Your task to perform on an android device: move an email to a new category in the gmail app Image 0: 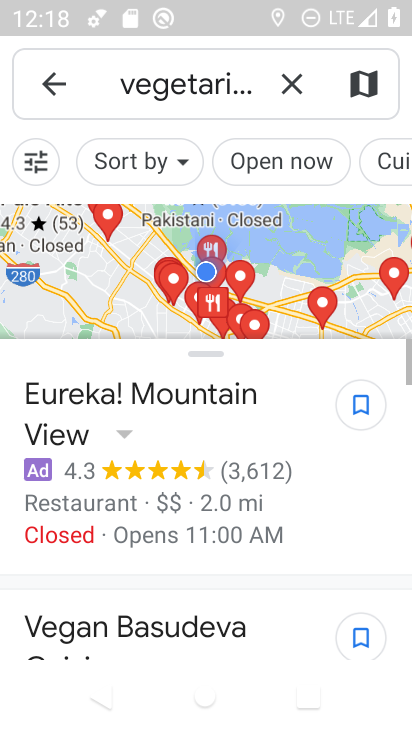
Step 0: press home button
Your task to perform on an android device: move an email to a new category in the gmail app Image 1: 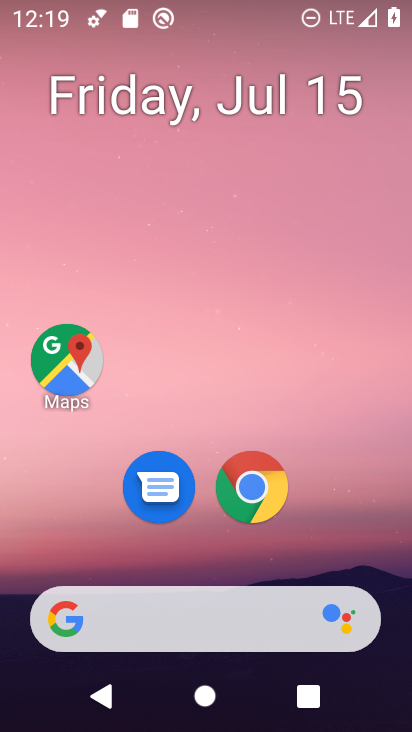
Step 1: drag from (193, 646) to (209, 226)
Your task to perform on an android device: move an email to a new category in the gmail app Image 2: 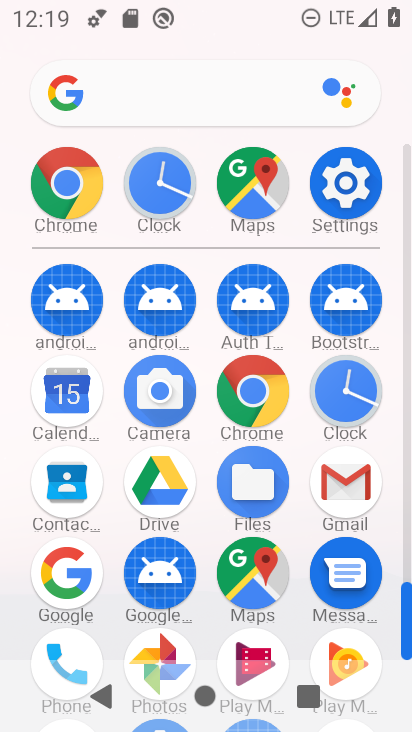
Step 2: drag from (241, 396) to (256, 147)
Your task to perform on an android device: move an email to a new category in the gmail app Image 3: 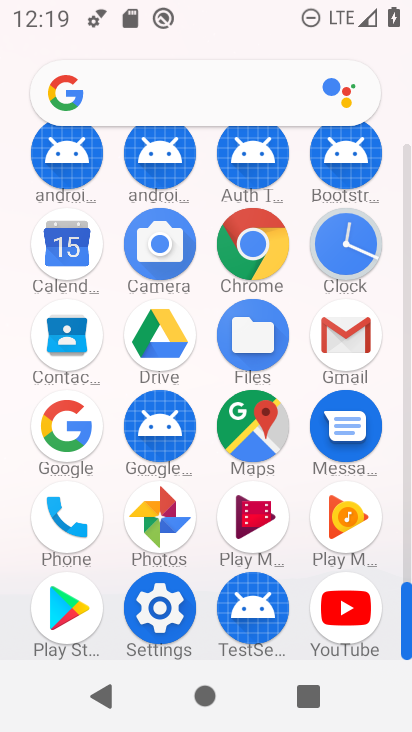
Step 3: click (366, 348)
Your task to perform on an android device: move an email to a new category in the gmail app Image 4: 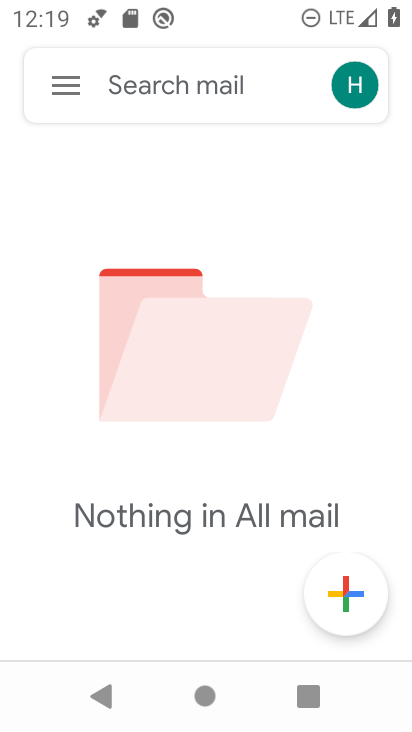
Step 4: task complete